Your task to perform on an android device: Go to sound settings Image 0: 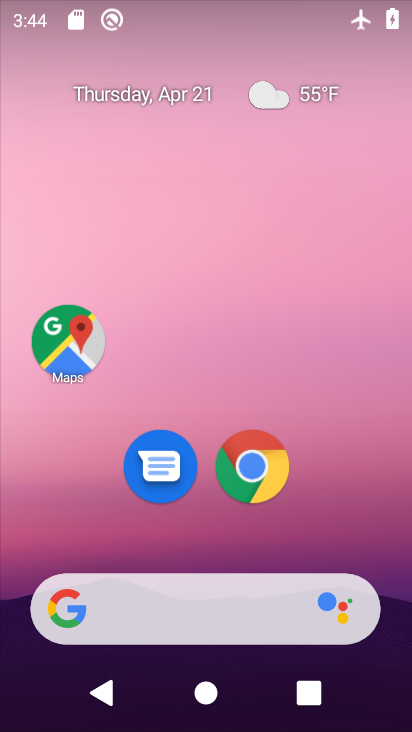
Step 0: drag from (184, 558) to (161, 84)
Your task to perform on an android device: Go to sound settings Image 1: 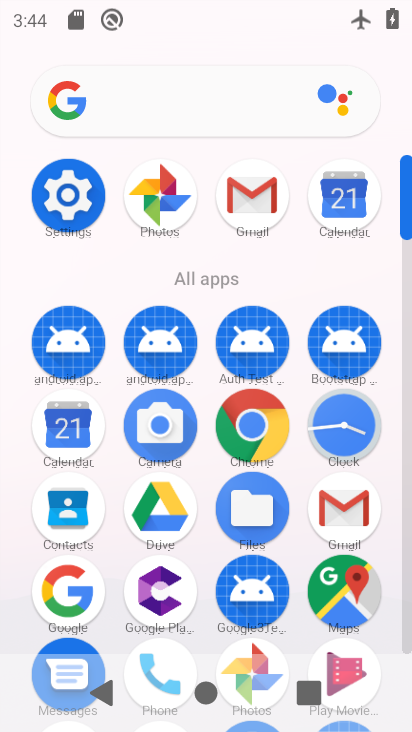
Step 1: click (67, 186)
Your task to perform on an android device: Go to sound settings Image 2: 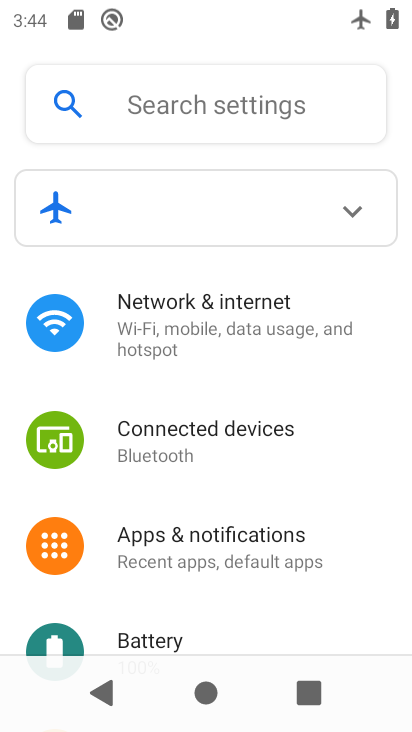
Step 2: click (186, 174)
Your task to perform on an android device: Go to sound settings Image 3: 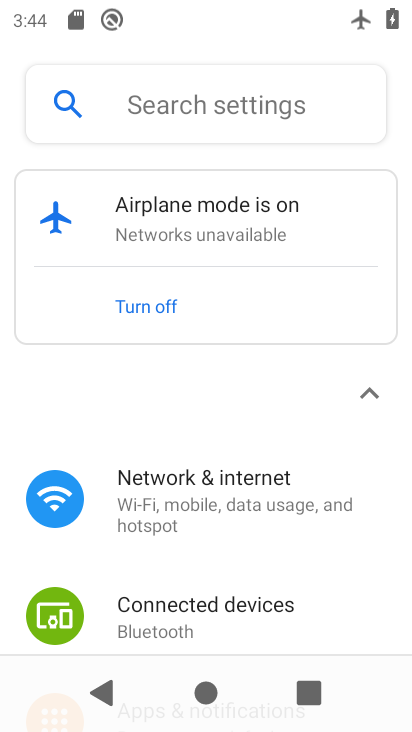
Step 3: drag from (259, 542) to (270, 155)
Your task to perform on an android device: Go to sound settings Image 4: 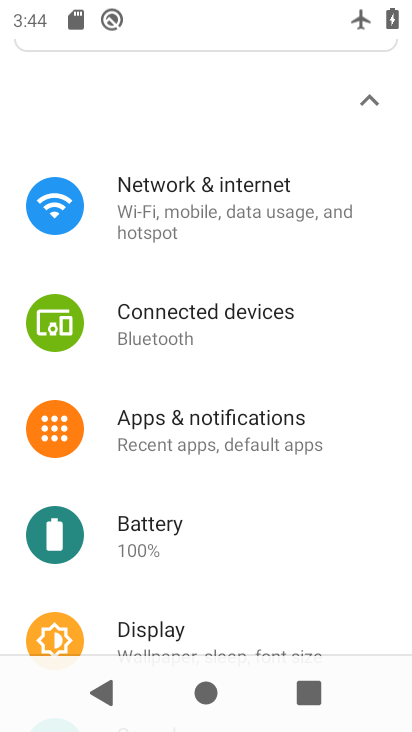
Step 4: drag from (218, 511) to (171, 169)
Your task to perform on an android device: Go to sound settings Image 5: 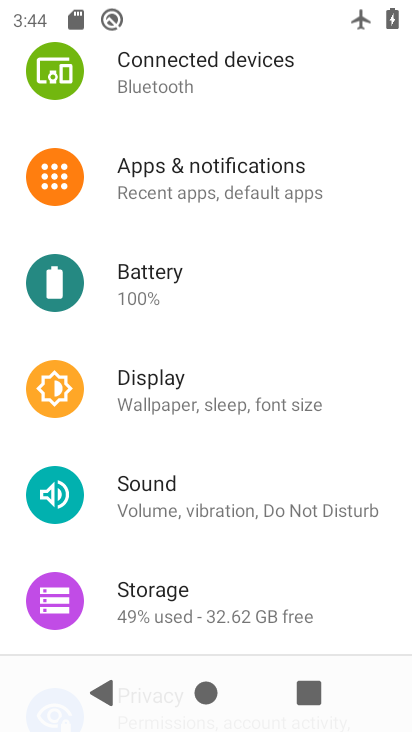
Step 5: click (273, 523)
Your task to perform on an android device: Go to sound settings Image 6: 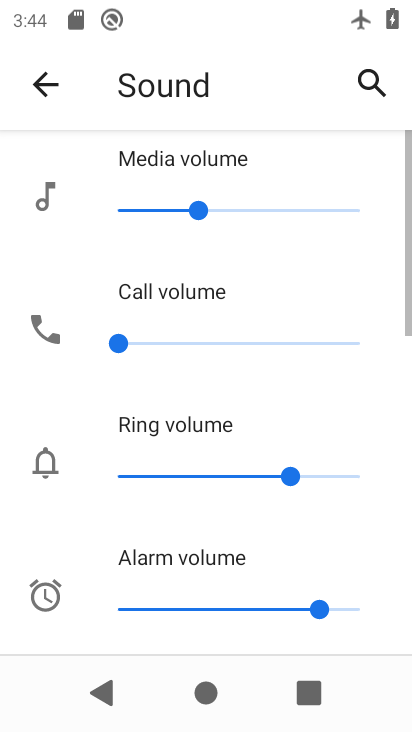
Step 6: task complete